Your task to perform on an android device: clear history in the chrome app Image 0: 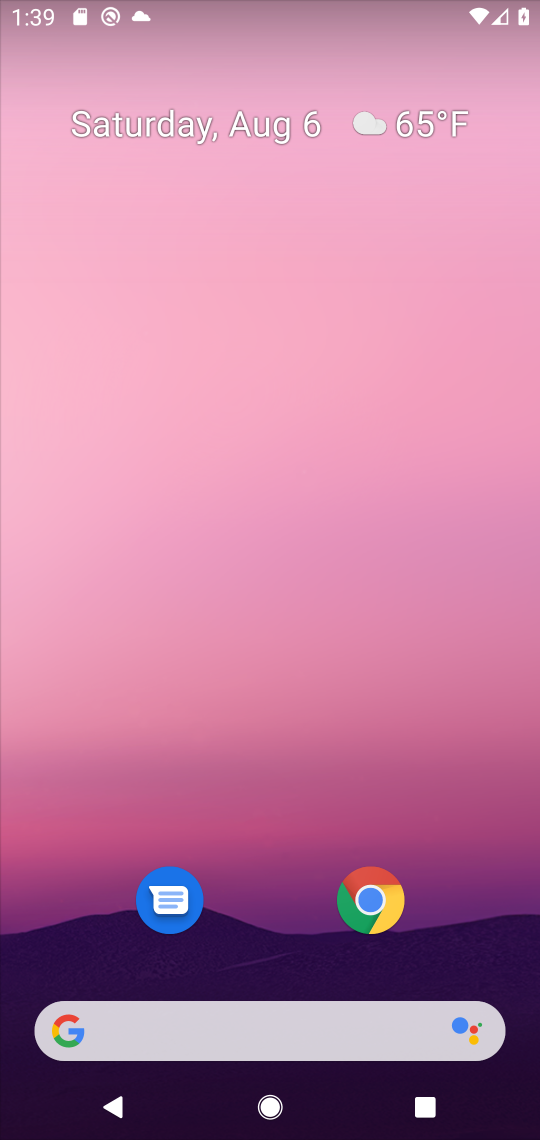
Step 0: press home button
Your task to perform on an android device: clear history in the chrome app Image 1: 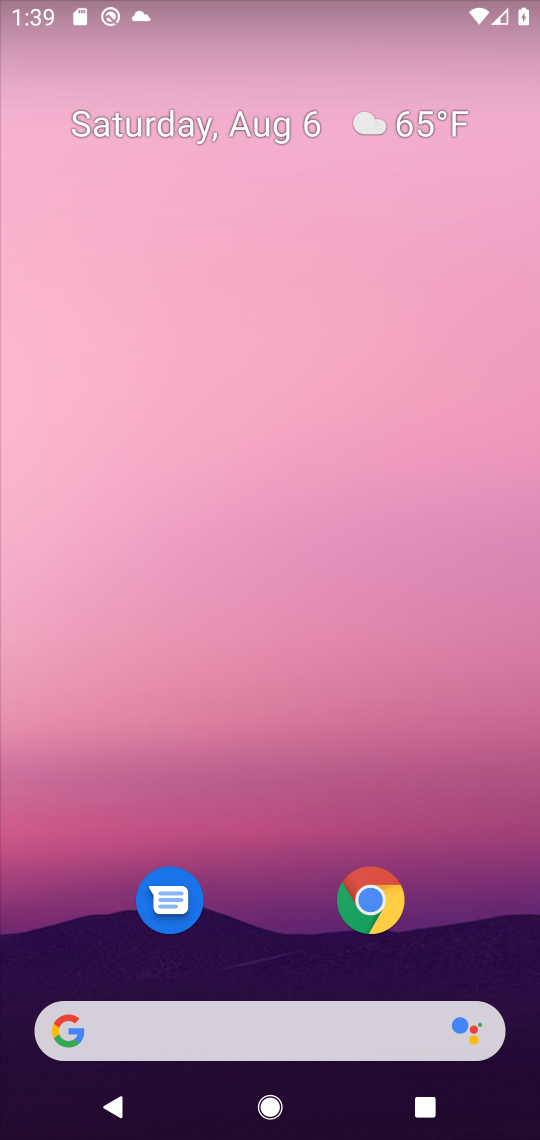
Step 1: click (361, 901)
Your task to perform on an android device: clear history in the chrome app Image 2: 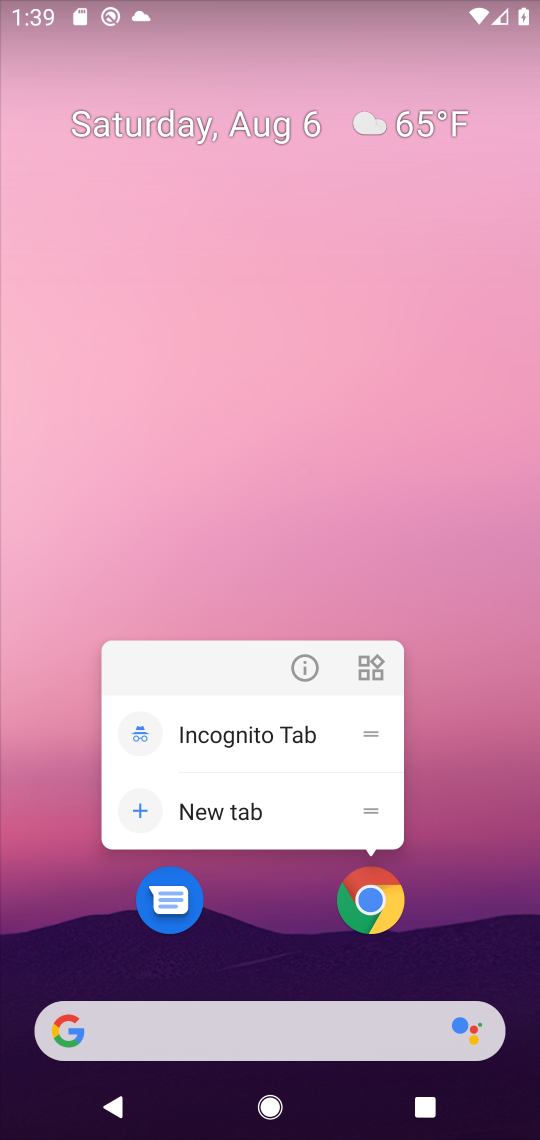
Step 2: click (361, 901)
Your task to perform on an android device: clear history in the chrome app Image 3: 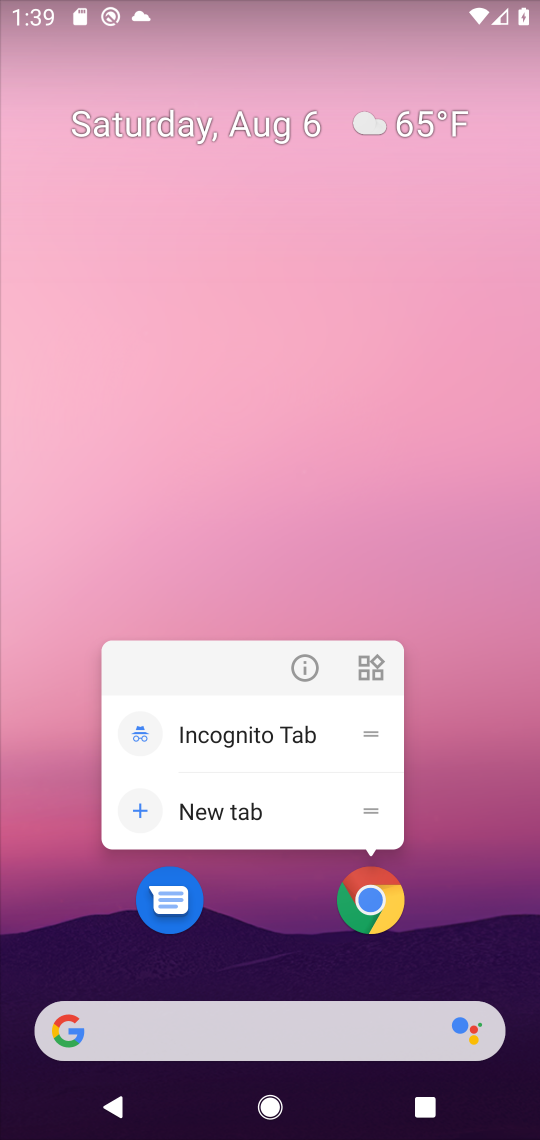
Step 3: click (382, 876)
Your task to perform on an android device: clear history in the chrome app Image 4: 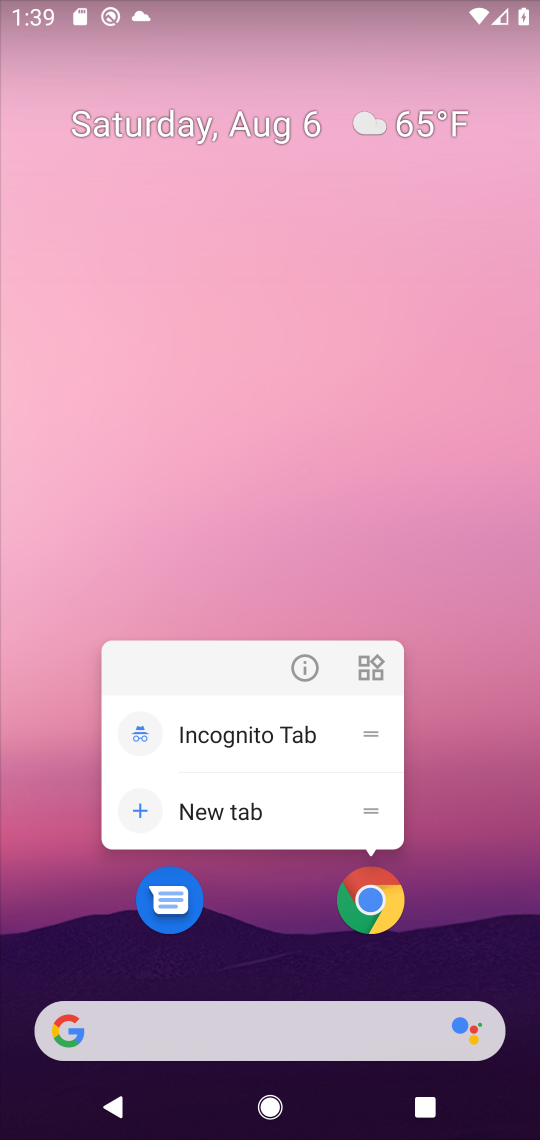
Step 4: click (353, 921)
Your task to perform on an android device: clear history in the chrome app Image 5: 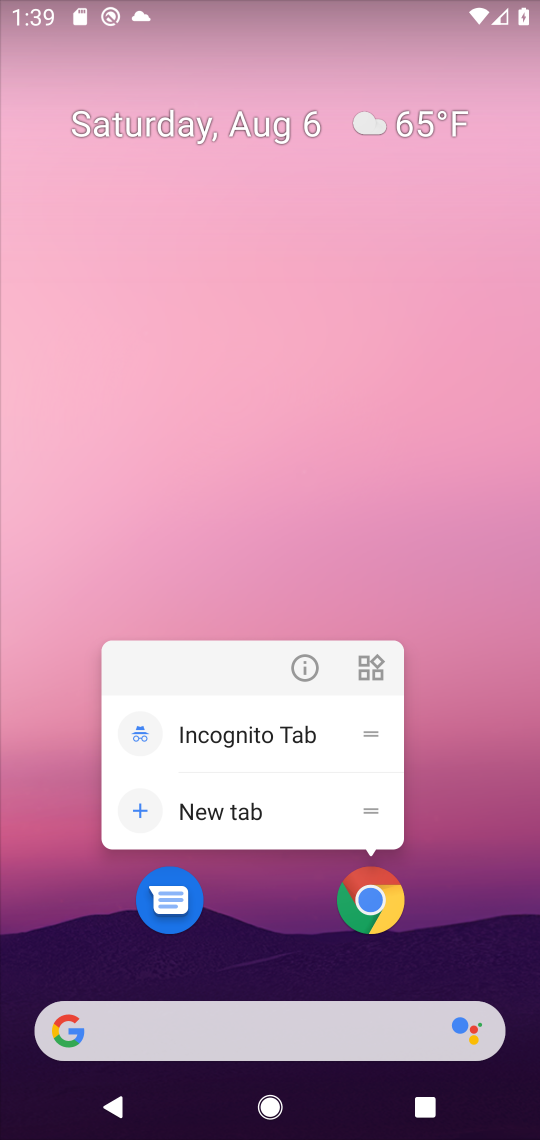
Step 5: click (377, 915)
Your task to perform on an android device: clear history in the chrome app Image 6: 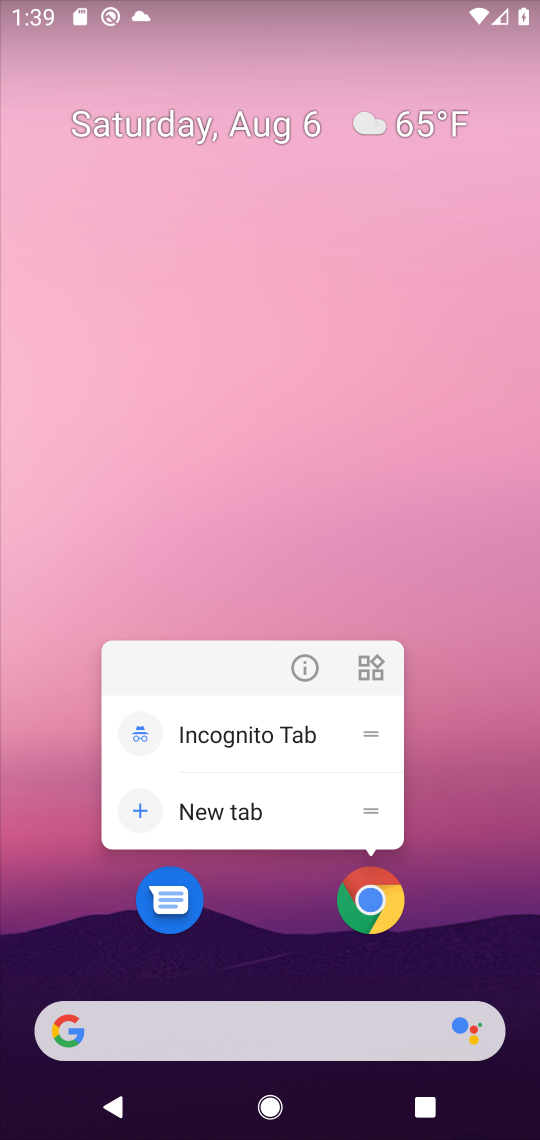
Step 6: click (377, 915)
Your task to perform on an android device: clear history in the chrome app Image 7: 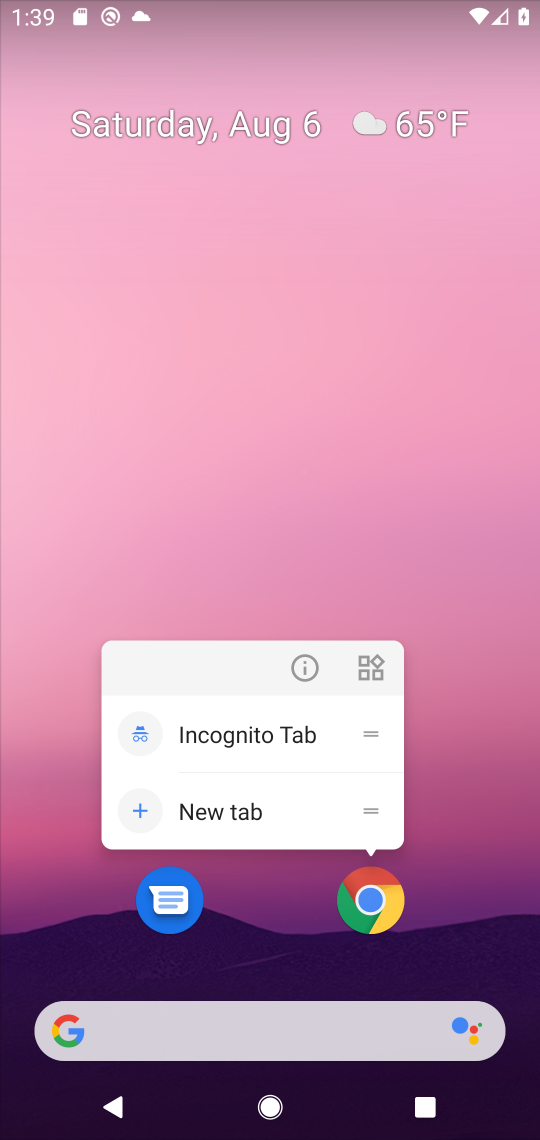
Step 7: click (364, 909)
Your task to perform on an android device: clear history in the chrome app Image 8: 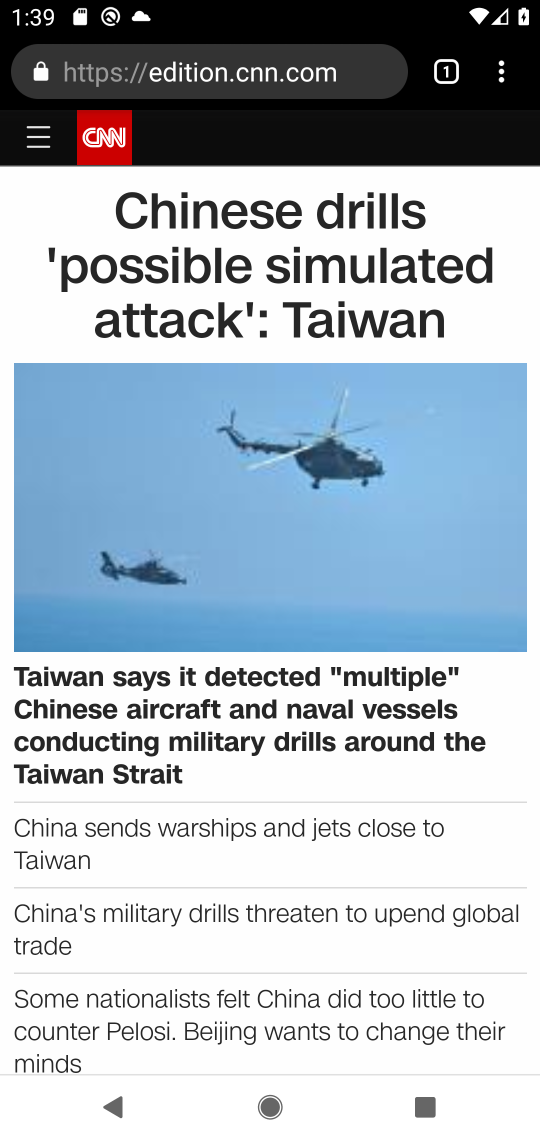
Step 8: drag from (495, 69) to (274, 897)
Your task to perform on an android device: clear history in the chrome app Image 9: 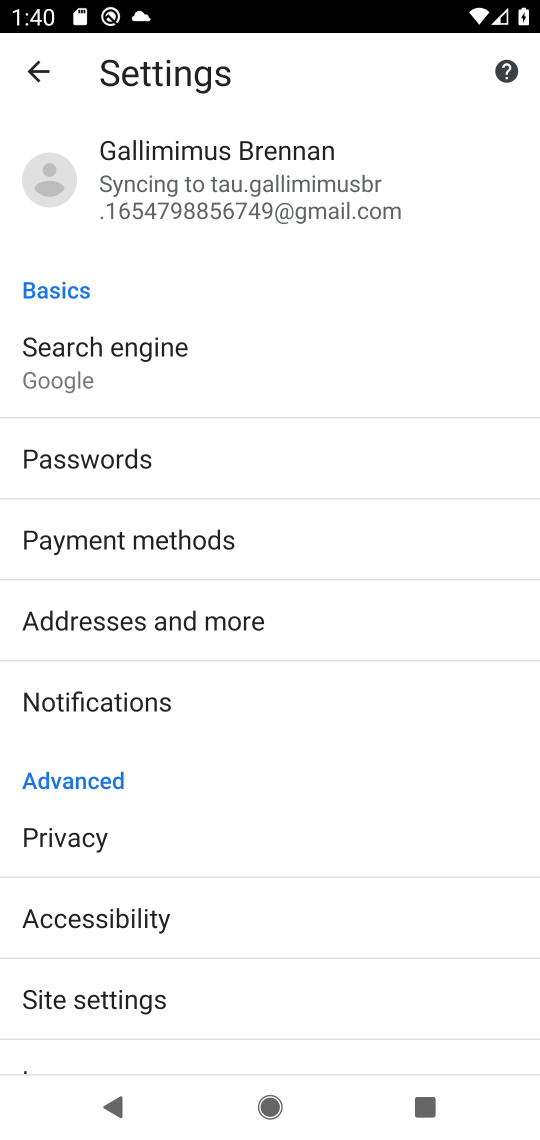
Step 9: click (91, 845)
Your task to perform on an android device: clear history in the chrome app Image 10: 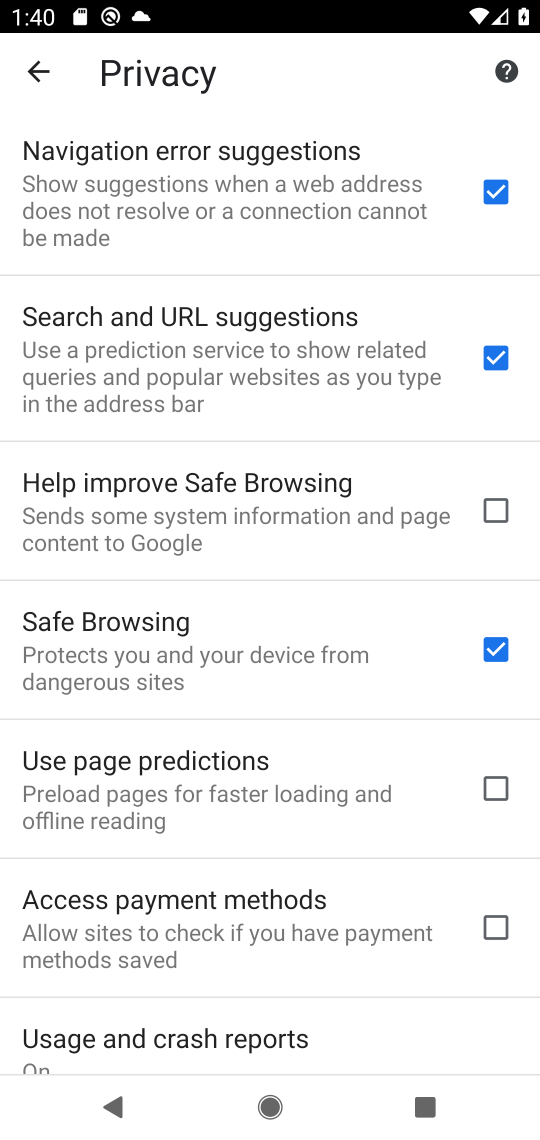
Step 10: drag from (273, 1002) to (254, 330)
Your task to perform on an android device: clear history in the chrome app Image 11: 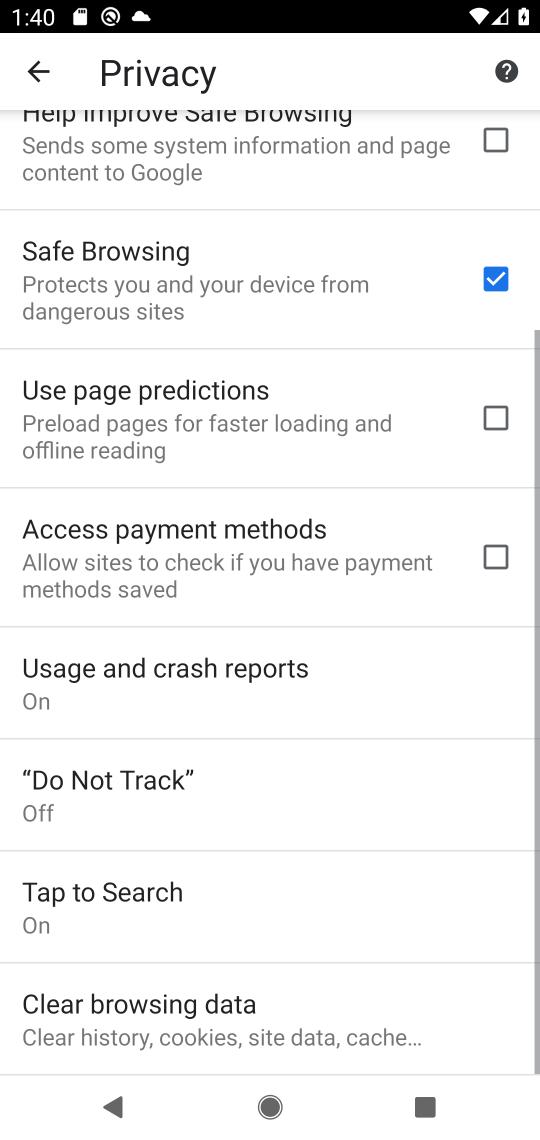
Step 11: click (147, 1007)
Your task to perform on an android device: clear history in the chrome app Image 12: 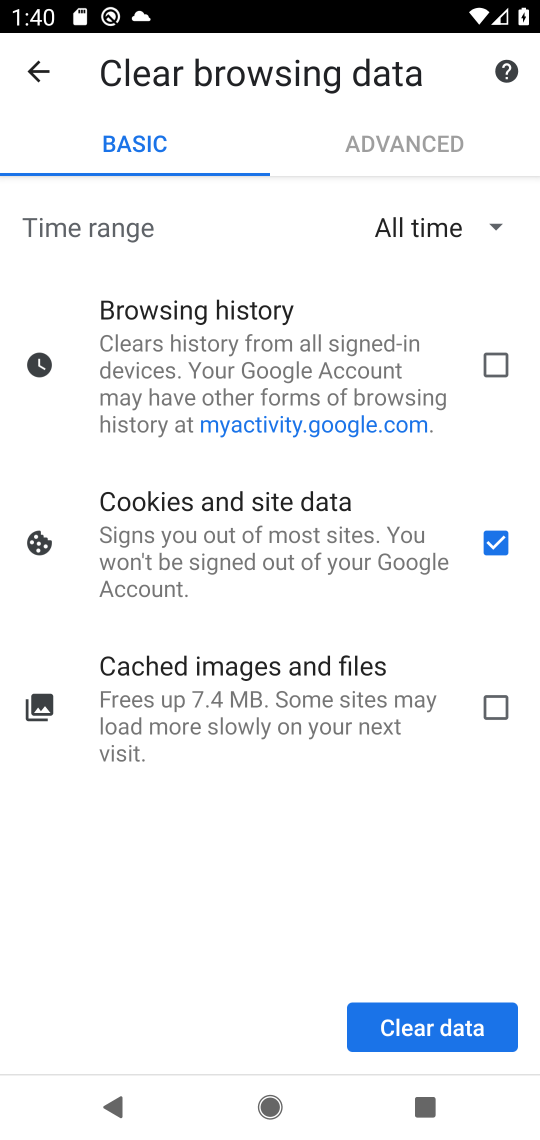
Step 12: click (491, 366)
Your task to perform on an android device: clear history in the chrome app Image 13: 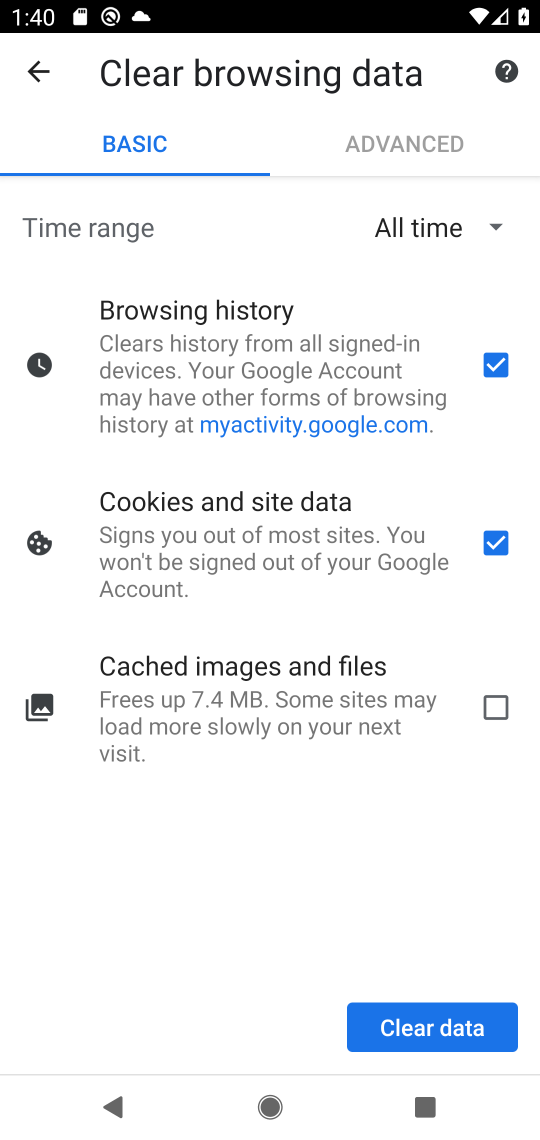
Step 13: click (503, 548)
Your task to perform on an android device: clear history in the chrome app Image 14: 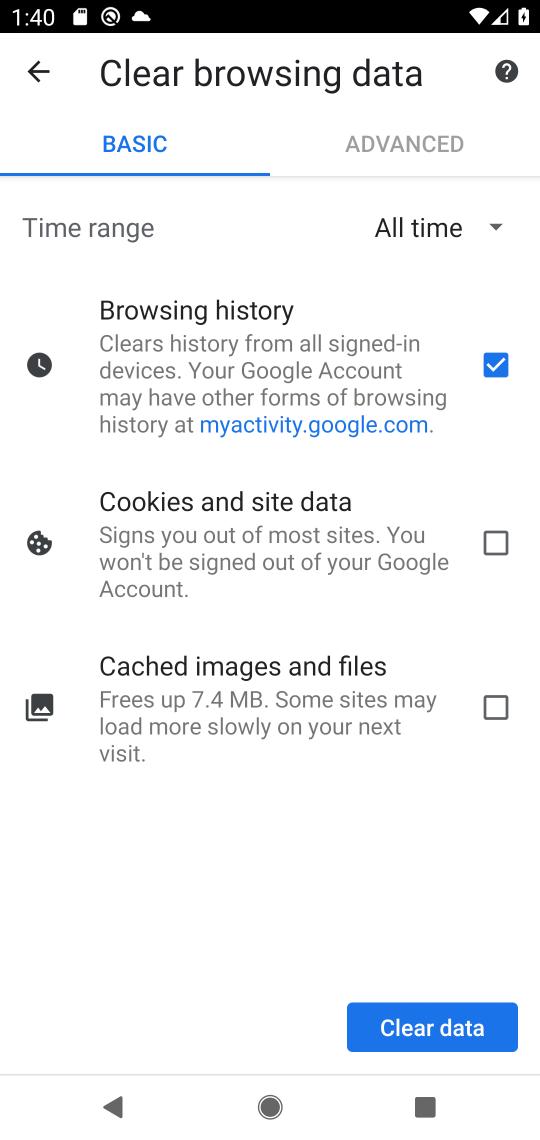
Step 14: click (414, 1034)
Your task to perform on an android device: clear history in the chrome app Image 15: 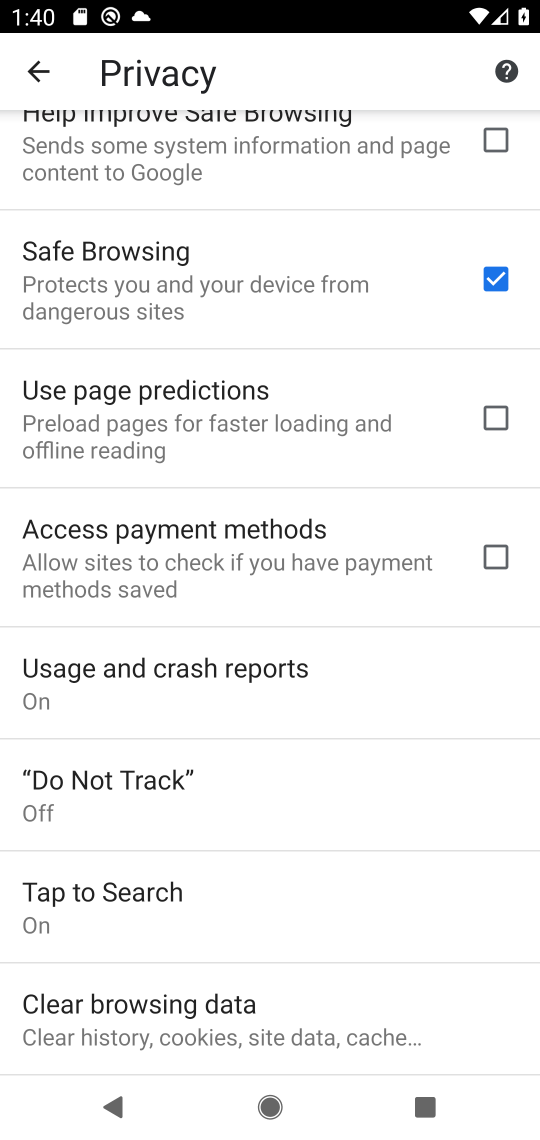
Step 15: task complete